Your task to perform on an android device: Go to Android settings Image 0: 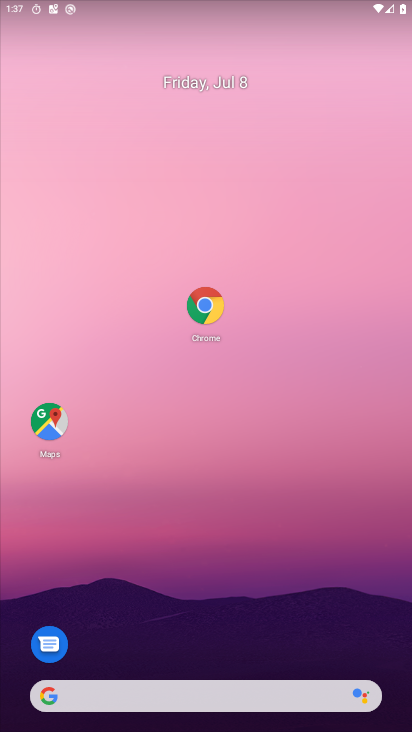
Step 0: drag from (196, 645) to (207, 356)
Your task to perform on an android device: Go to Android settings Image 1: 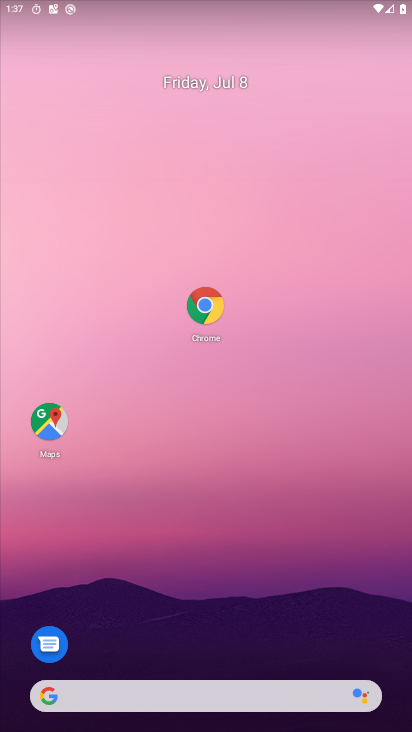
Step 1: drag from (214, 677) to (221, 427)
Your task to perform on an android device: Go to Android settings Image 2: 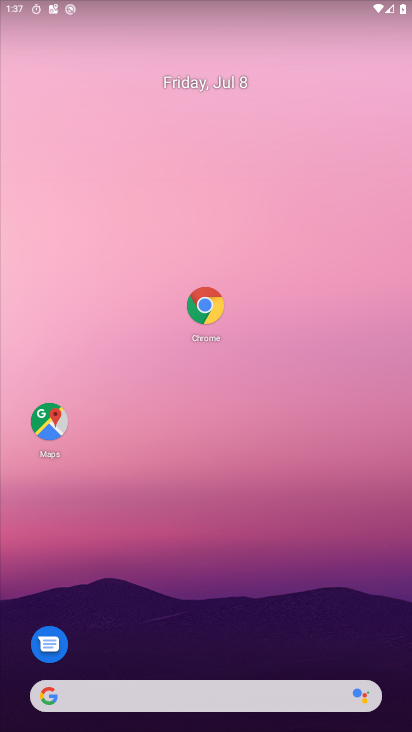
Step 2: drag from (208, 678) to (201, 182)
Your task to perform on an android device: Go to Android settings Image 3: 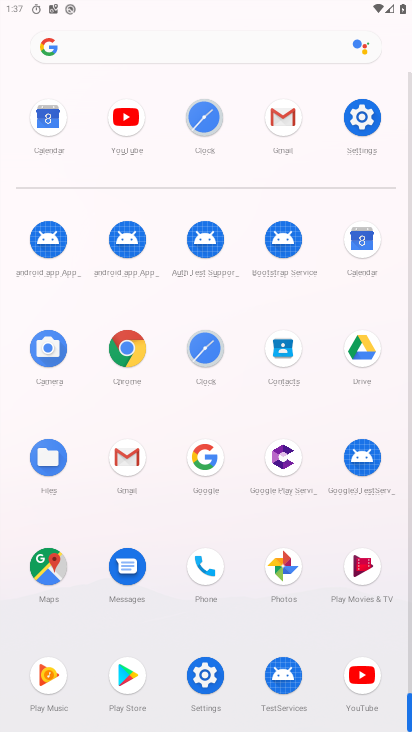
Step 3: click (367, 115)
Your task to perform on an android device: Go to Android settings Image 4: 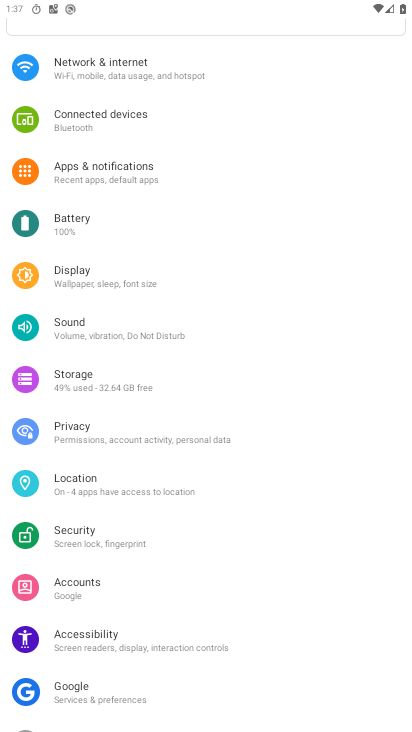
Step 4: task complete